Your task to perform on an android device: turn on javascript in the chrome app Image 0: 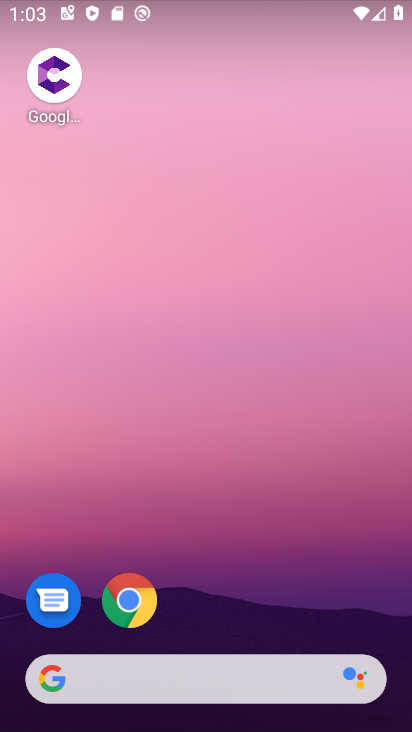
Step 0: click (127, 600)
Your task to perform on an android device: turn on javascript in the chrome app Image 1: 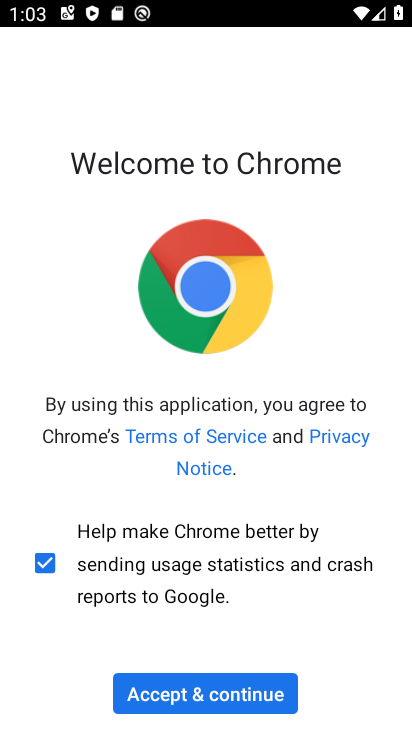
Step 1: click (172, 698)
Your task to perform on an android device: turn on javascript in the chrome app Image 2: 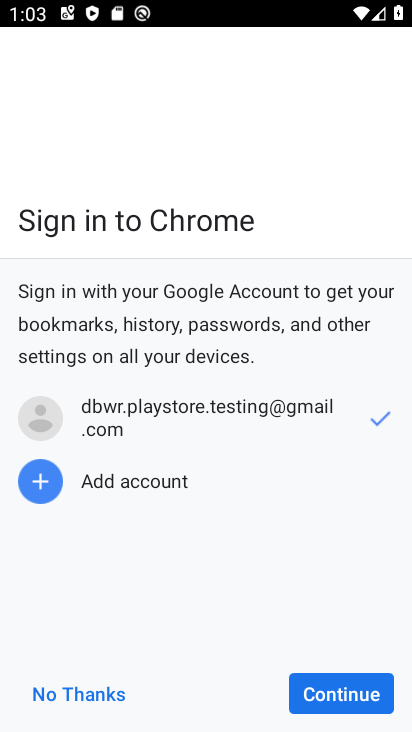
Step 2: click (318, 695)
Your task to perform on an android device: turn on javascript in the chrome app Image 3: 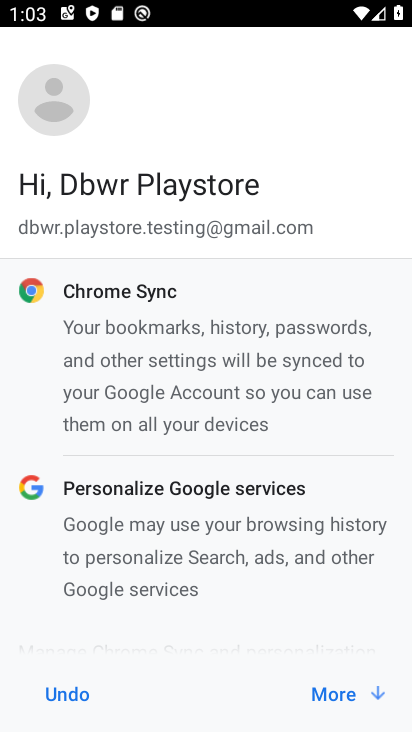
Step 3: click (326, 693)
Your task to perform on an android device: turn on javascript in the chrome app Image 4: 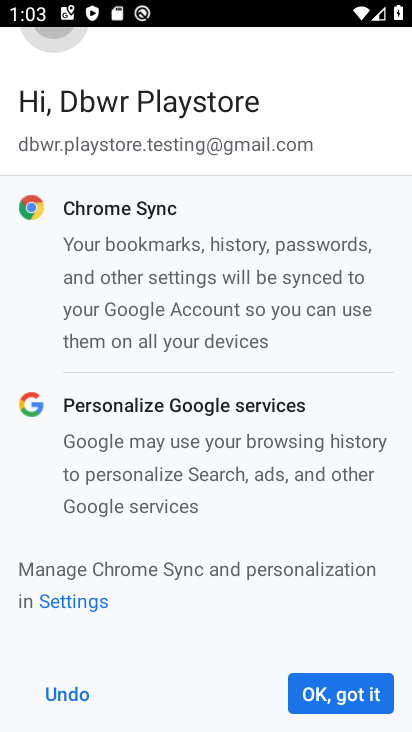
Step 4: click (326, 693)
Your task to perform on an android device: turn on javascript in the chrome app Image 5: 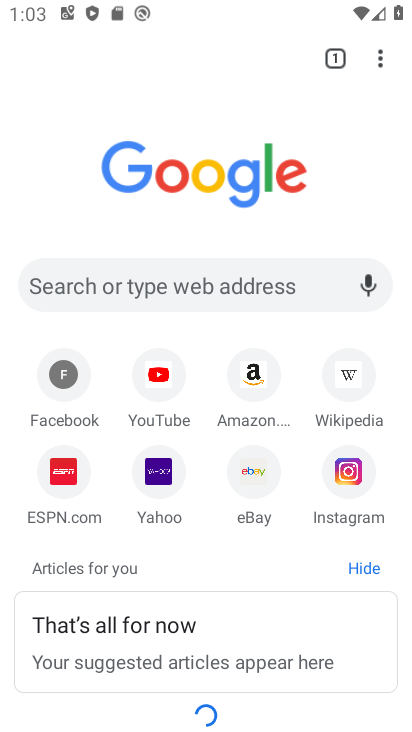
Step 5: click (379, 65)
Your task to perform on an android device: turn on javascript in the chrome app Image 6: 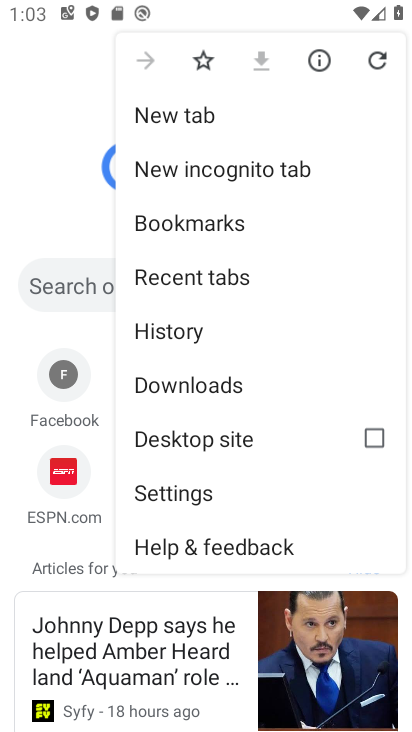
Step 6: click (179, 491)
Your task to perform on an android device: turn on javascript in the chrome app Image 7: 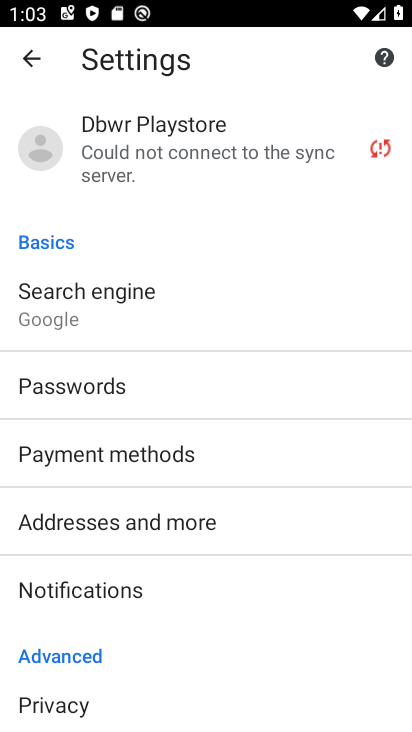
Step 7: drag from (143, 694) to (139, 246)
Your task to perform on an android device: turn on javascript in the chrome app Image 8: 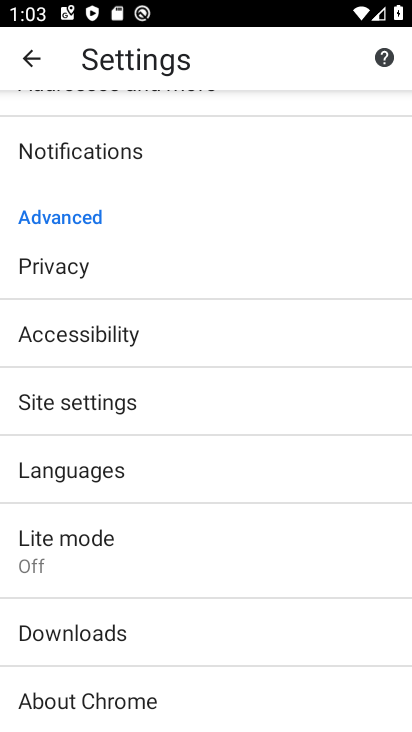
Step 8: click (73, 404)
Your task to perform on an android device: turn on javascript in the chrome app Image 9: 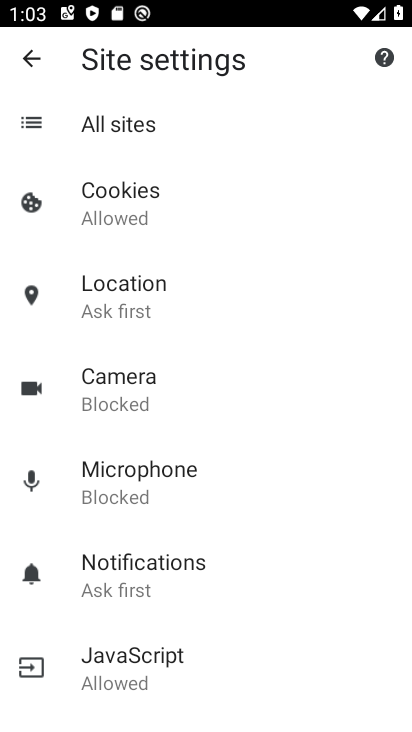
Step 9: click (146, 660)
Your task to perform on an android device: turn on javascript in the chrome app Image 10: 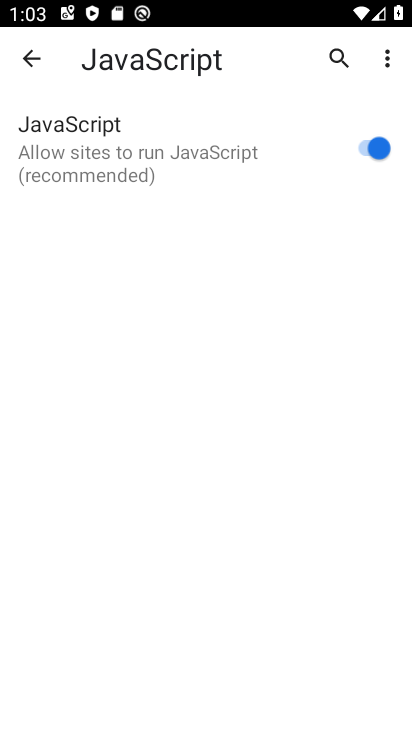
Step 10: task complete